Your task to perform on an android device: open app "Google Duo" (install if not already installed) Image 0: 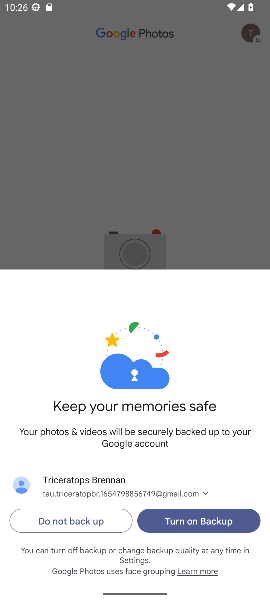
Step 0: press home button
Your task to perform on an android device: open app "Google Duo" (install if not already installed) Image 1: 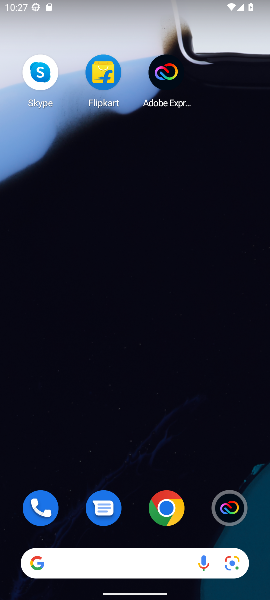
Step 1: drag from (114, 549) to (138, 126)
Your task to perform on an android device: open app "Google Duo" (install if not already installed) Image 2: 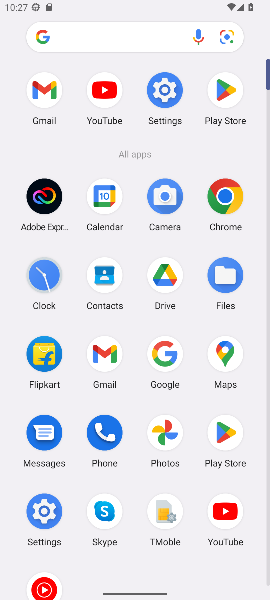
Step 2: click (219, 94)
Your task to perform on an android device: open app "Google Duo" (install if not already installed) Image 3: 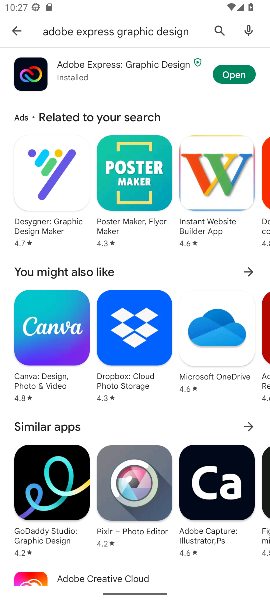
Step 3: click (223, 28)
Your task to perform on an android device: open app "Google Duo" (install if not already installed) Image 4: 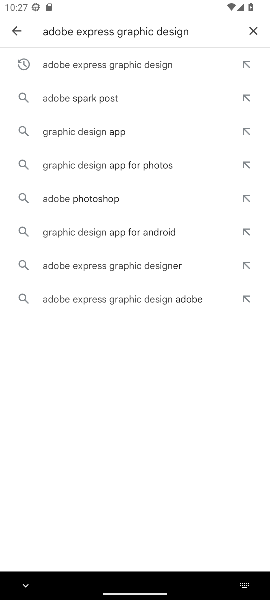
Step 4: click (256, 30)
Your task to perform on an android device: open app "Google Duo" (install if not already installed) Image 5: 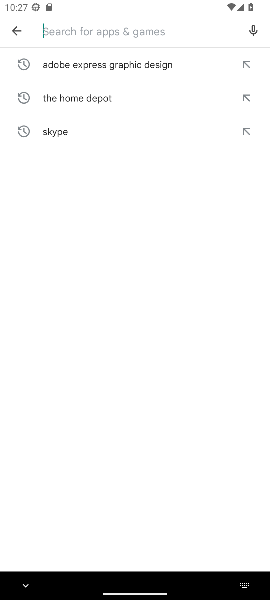
Step 5: type "Google Duo"
Your task to perform on an android device: open app "Google Duo" (install if not already installed) Image 6: 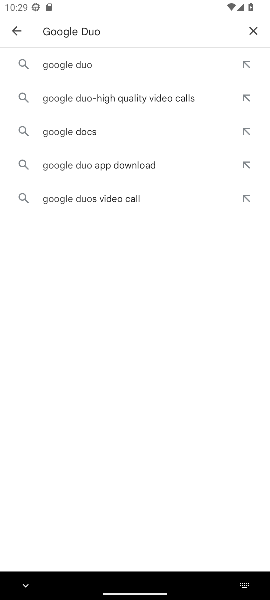
Step 6: click (89, 65)
Your task to perform on an android device: open app "Google Duo" (install if not already installed) Image 7: 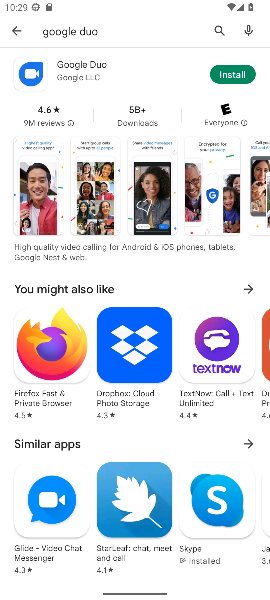
Step 7: click (220, 79)
Your task to perform on an android device: open app "Google Duo" (install if not already installed) Image 8: 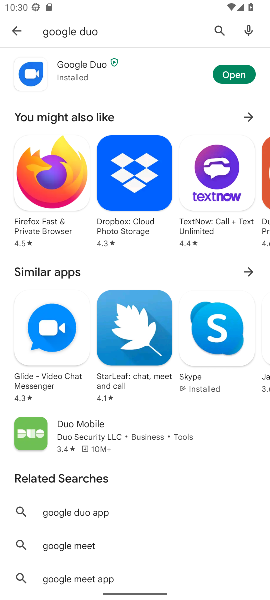
Step 8: click (231, 73)
Your task to perform on an android device: open app "Google Duo" (install if not already installed) Image 9: 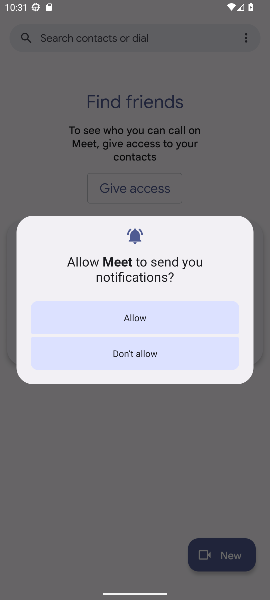
Step 9: task complete